Your task to perform on an android device: change your default location settings in chrome Image 0: 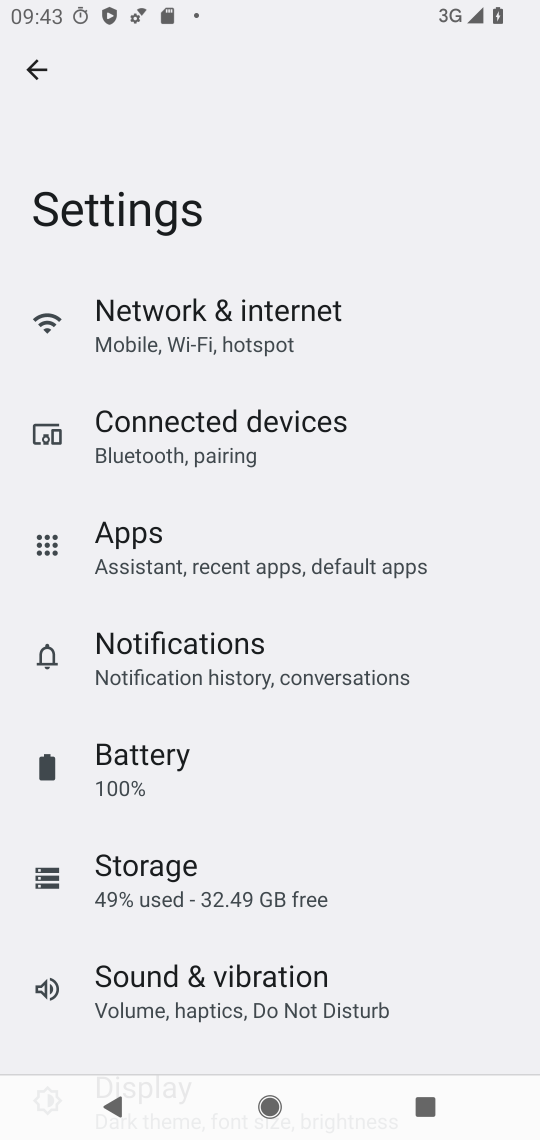
Step 0: press home button
Your task to perform on an android device: change your default location settings in chrome Image 1: 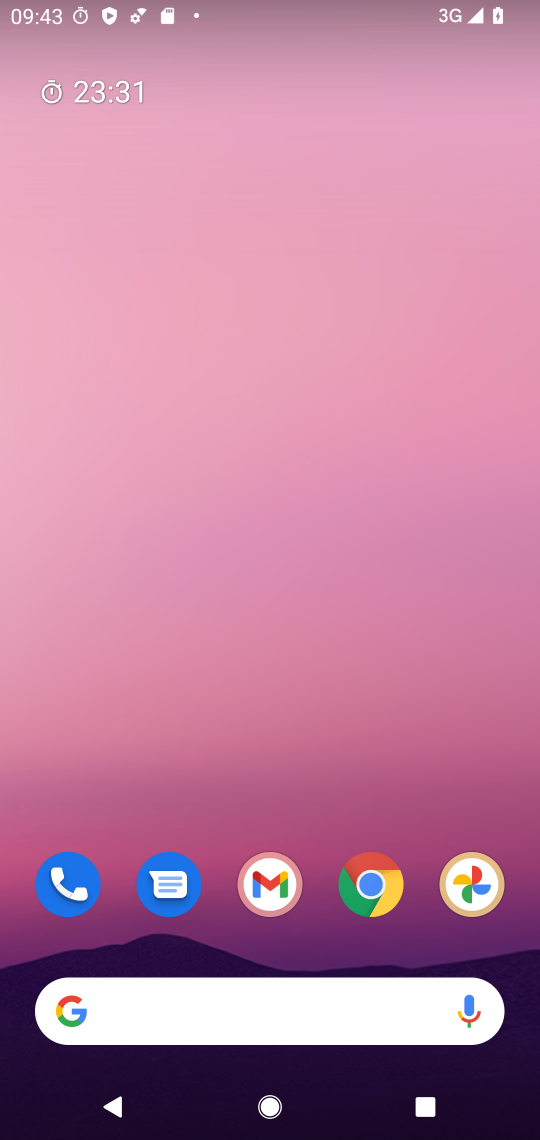
Step 1: click (359, 870)
Your task to perform on an android device: change your default location settings in chrome Image 2: 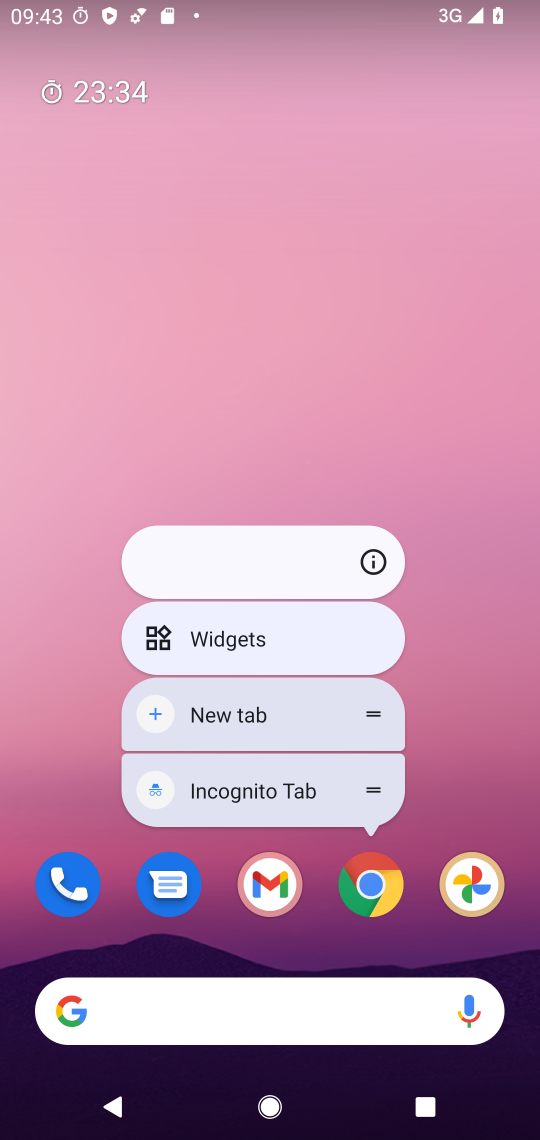
Step 2: click (357, 887)
Your task to perform on an android device: change your default location settings in chrome Image 3: 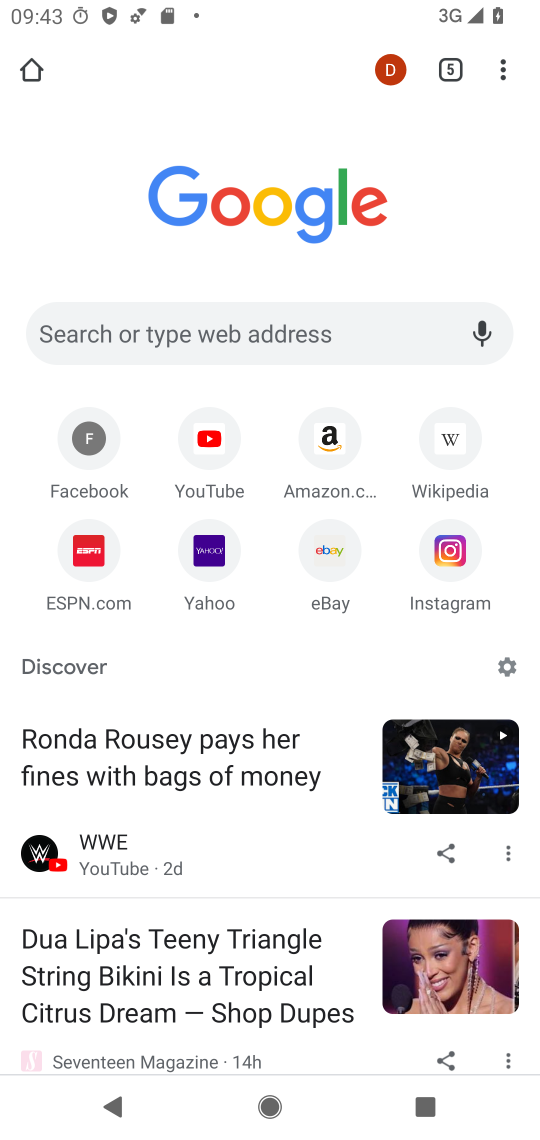
Step 3: click (514, 79)
Your task to perform on an android device: change your default location settings in chrome Image 4: 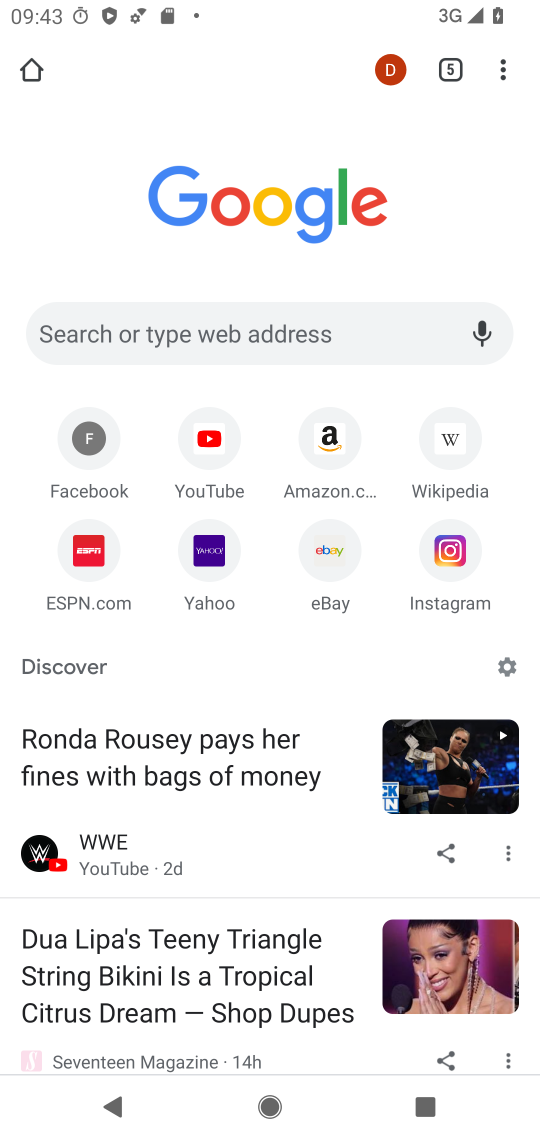
Step 4: click (495, 89)
Your task to perform on an android device: change your default location settings in chrome Image 5: 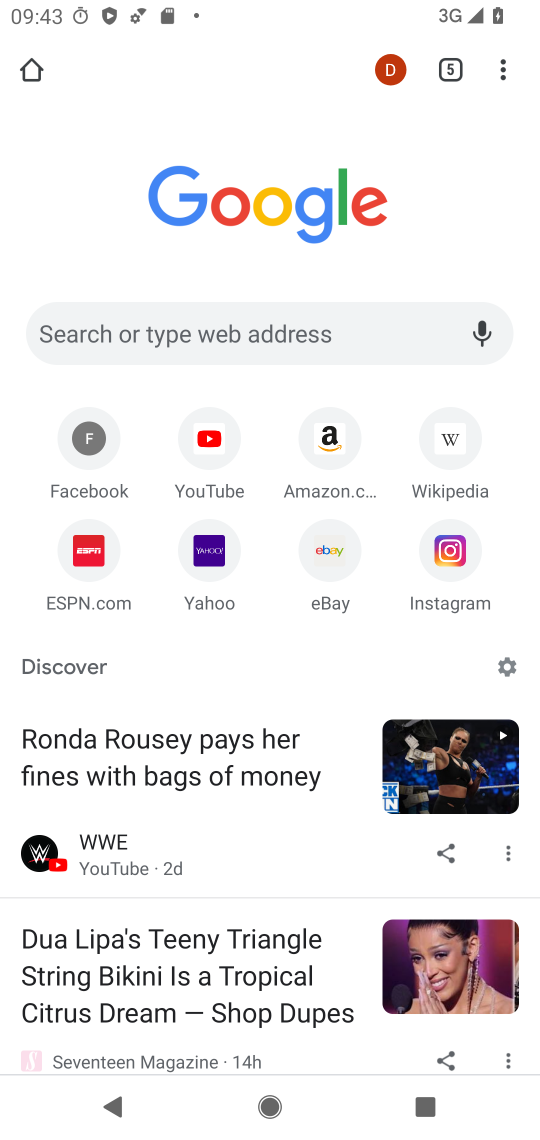
Step 5: click (508, 67)
Your task to perform on an android device: change your default location settings in chrome Image 6: 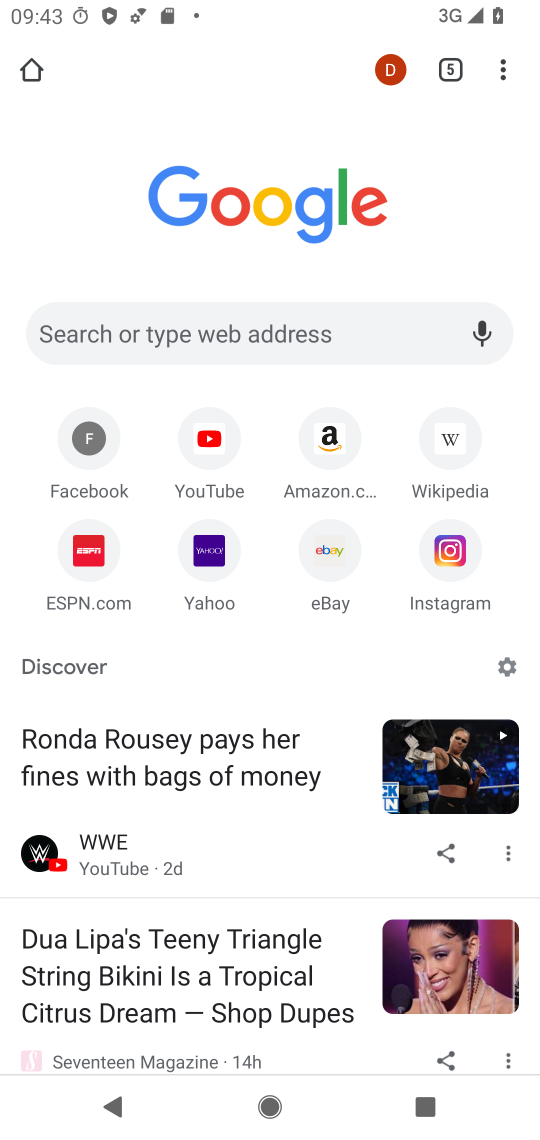
Step 6: drag from (508, 67) to (308, 701)
Your task to perform on an android device: change your default location settings in chrome Image 7: 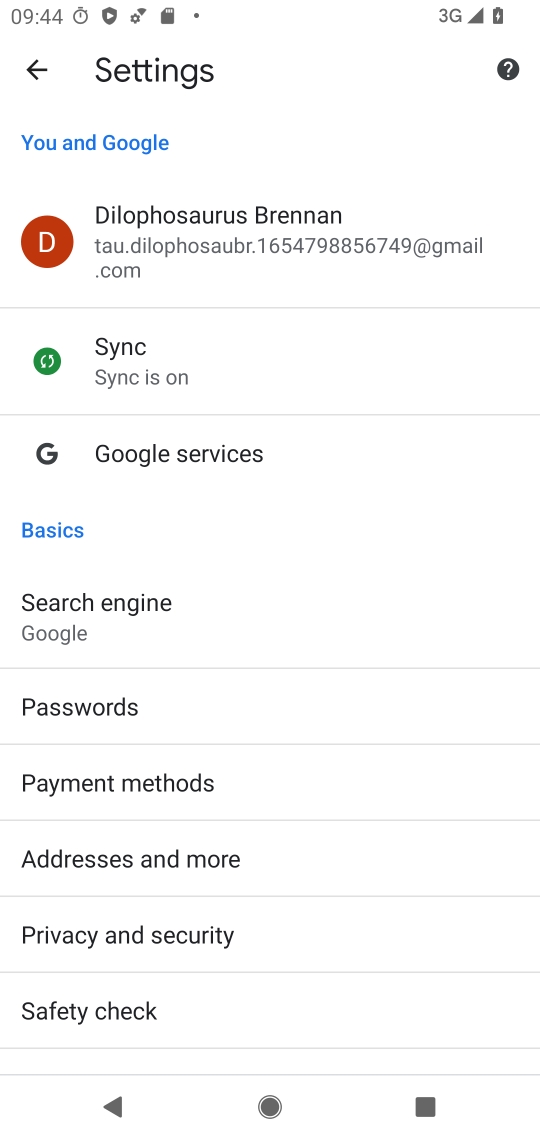
Step 7: drag from (233, 941) to (231, 543)
Your task to perform on an android device: change your default location settings in chrome Image 8: 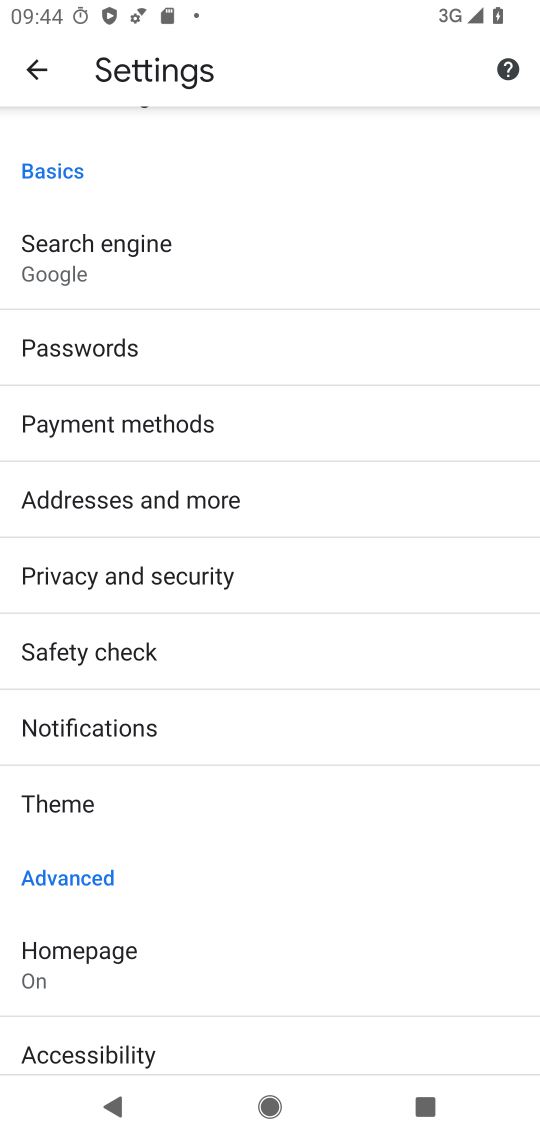
Step 8: drag from (201, 909) to (235, 414)
Your task to perform on an android device: change your default location settings in chrome Image 9: 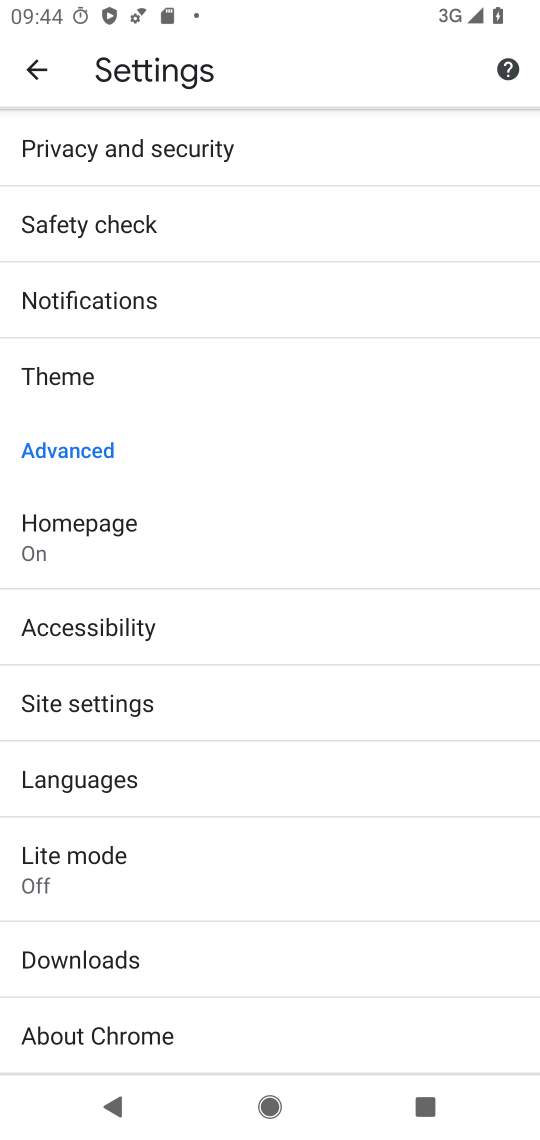
Step 9: click (121, 723)
Your task to perform on an android device: change your default location settings in chrome Image 10: 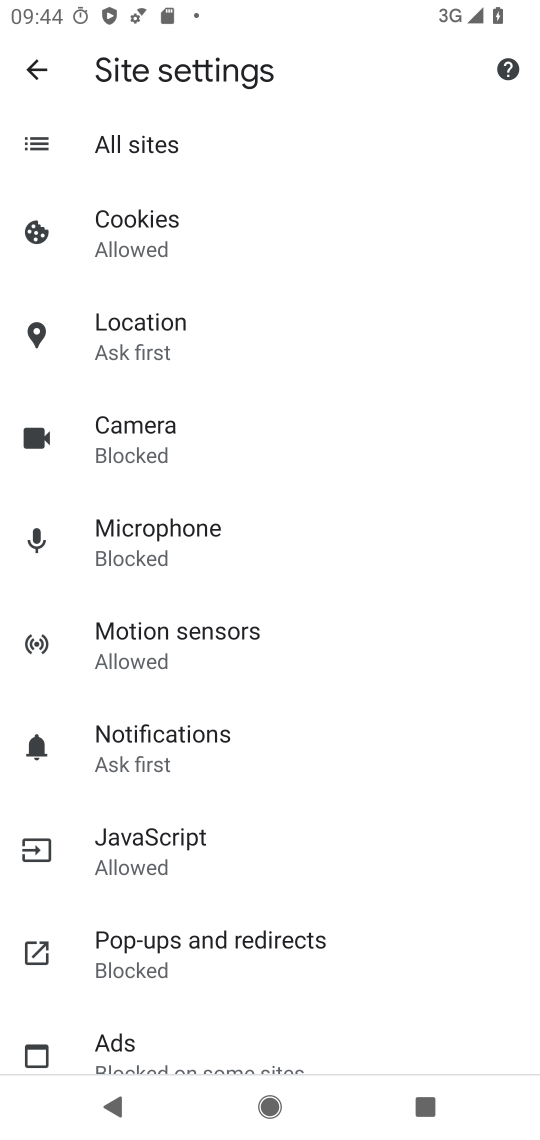
Step 10: click (187, 343)
Your task to perform on an android device: change your default location settings in chrome Image 11: 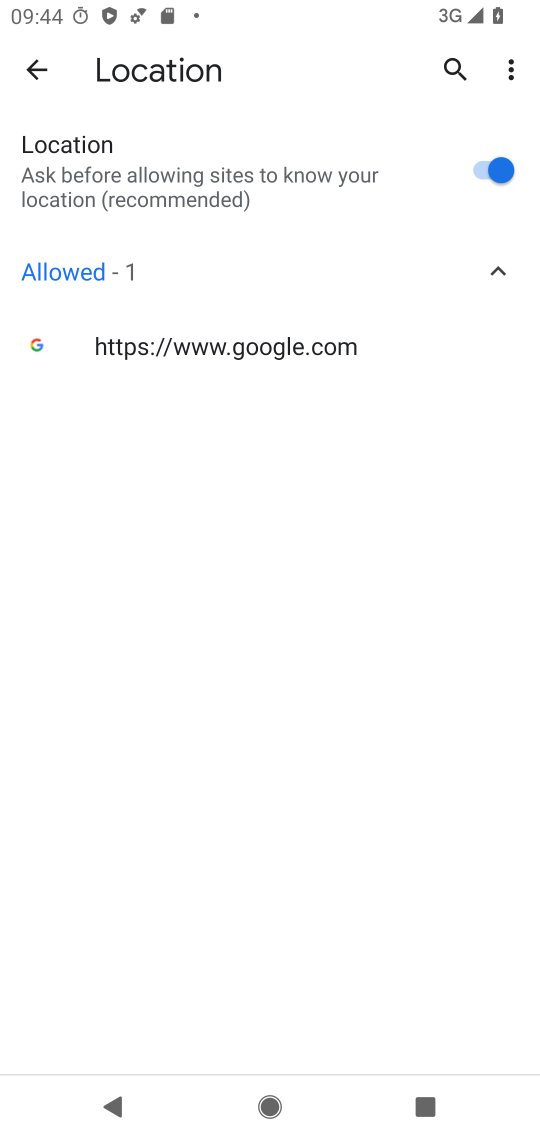
Step 11: click (483, 165)
Your task to perform on an android device: change your default location settings in chrome Image 12: 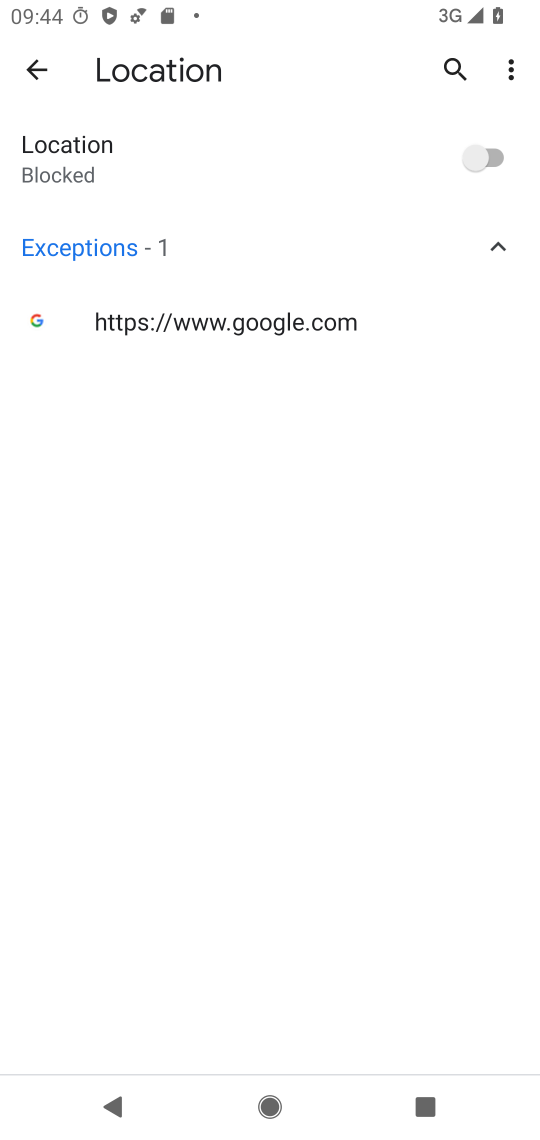
Step 12: task complete